Your task to perform on an android device: Show me popular videos on Youtube Image 0: 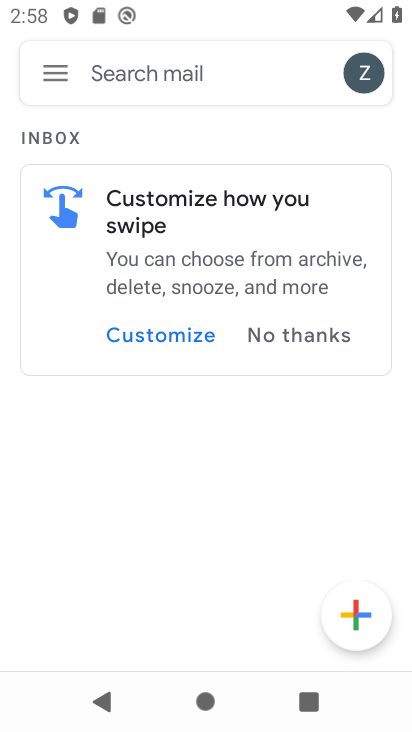
Step 0: press home button
Your task to perform on an android device: Show me popular videos on Youtube Image 1: 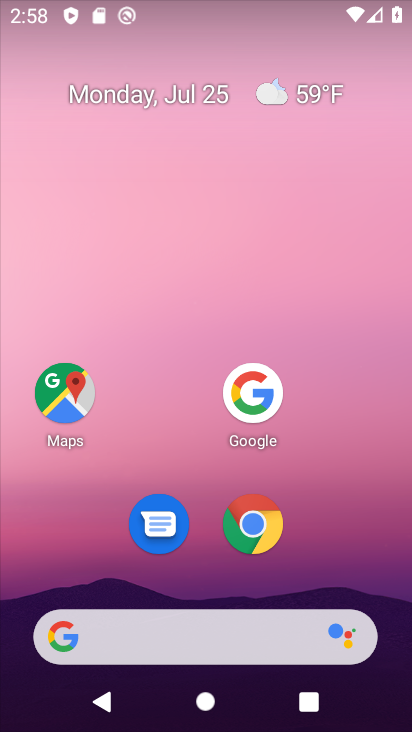
Step 1: drag from (202, 647) to (384, 14)
Your task to perform on an android device: Show me popular videos on Youtube Image 2: 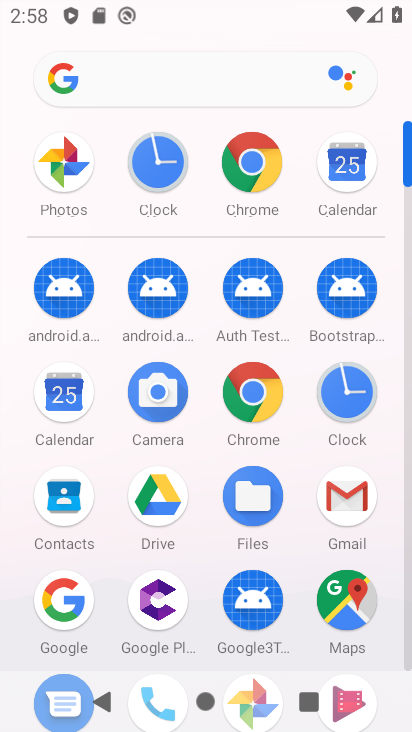
Step 2: drag from (200, 650) to (387, 77)
Your task to perform on an android device: Show me popular videos on Youtube Image 3: 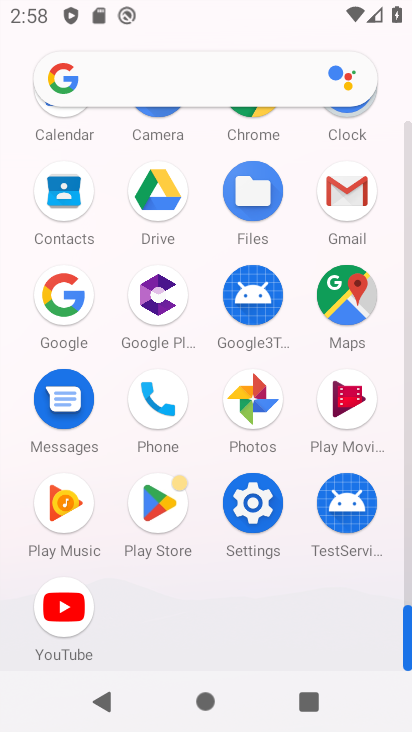
Step 3: click (53, 610)
Your task to perform on an android device: Show me popular videos on Youtube Image 4: 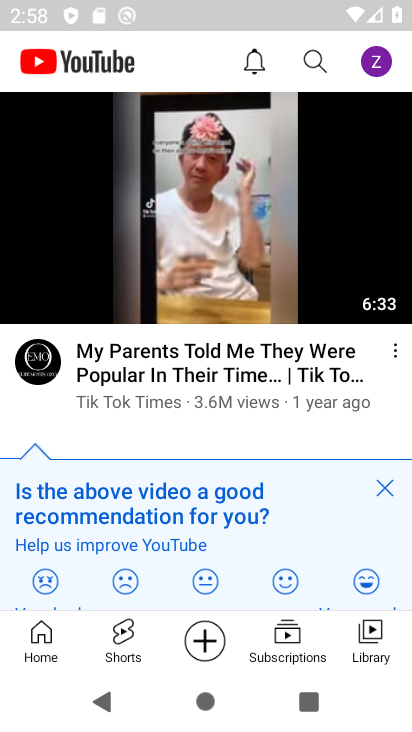
Step 4: click (380, 483)
Your task to perform on an android device: Show me popular videos on Youtube Image 5: 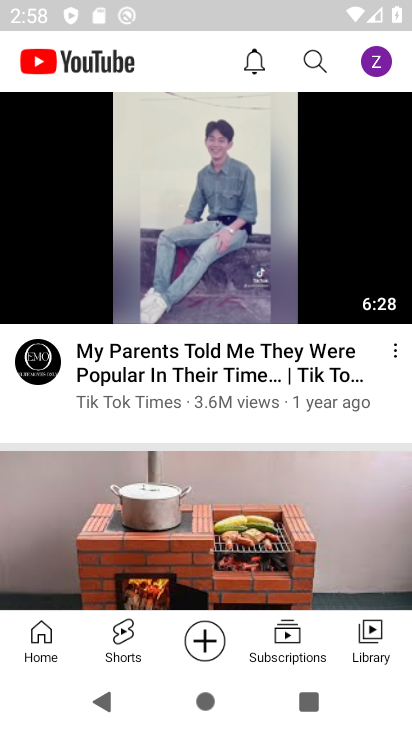
Step 5: task complete